Your task to perform on an android device: Go to calendar. Show me events next week Image 0: 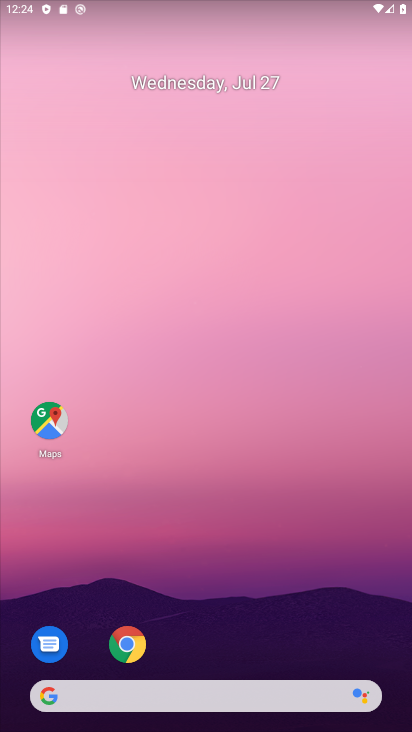
Step 0: drag from (281, 648) to (300, 238)
Your task to perform on an android device: Go to calendar. Show me events next week Image 1: 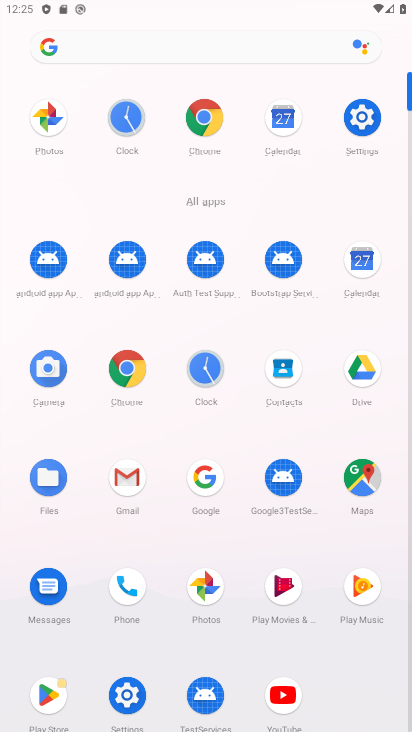
Step 1: click (364, 260)
Your task to perform on an android device: Go to calendar. Show me events next week Image 2: 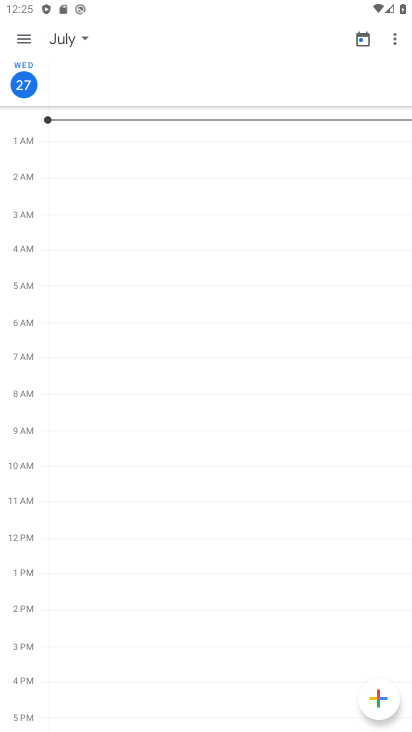
Step 2: click (25, 38)
Your task to perform on an android device: Go to calendar. Show me events next week Image 3: 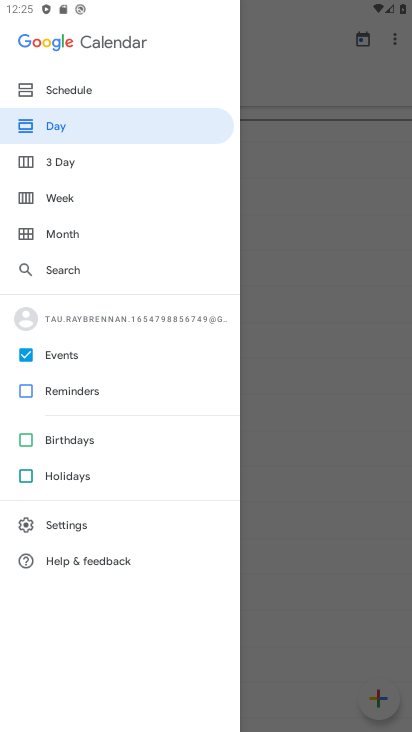
Step 3: click (72, 199)
Your task to perform on an android device: Go to calendar. Show me events next week Image 4: 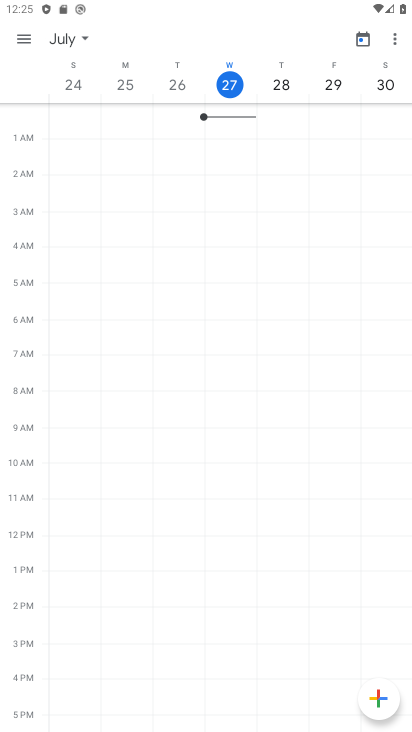
Step 4: task complete